Your task to perform on an android device: change notifications settings Image 0: 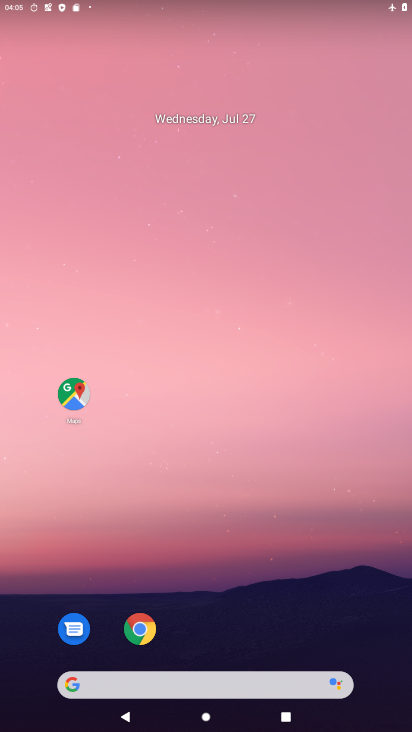
Step 0: drag from (312, 606) to (265, 48)
Your task to perform on an android device: change notifications settings Image 1: 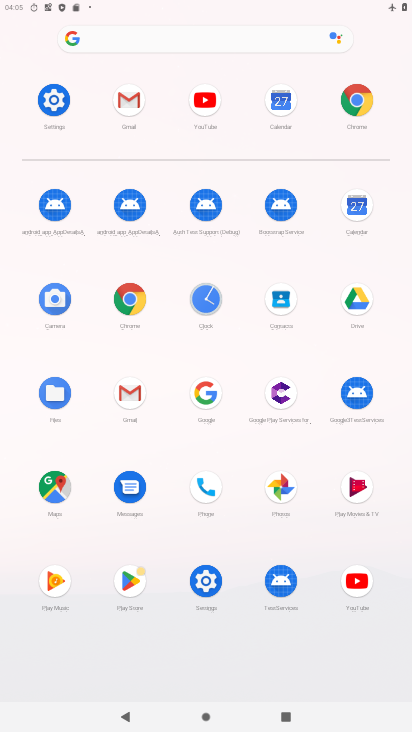
Step 1: click (46, 95)
Your task to perform on an android device: change notifications settings Image 2: 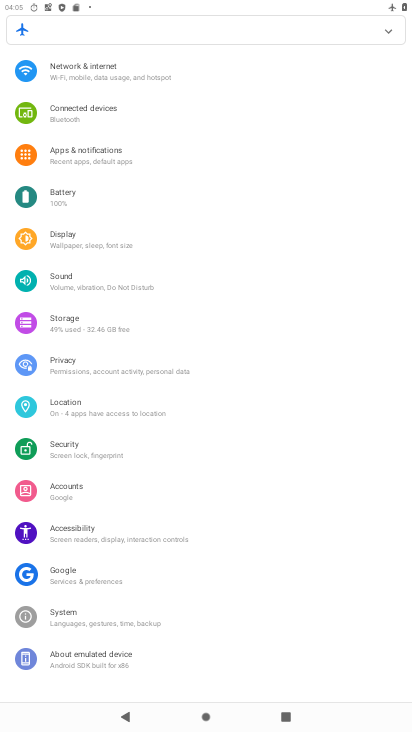
Step 2: click (94, 164)
Your task to perform on an android device: change notifications settings Image 3: 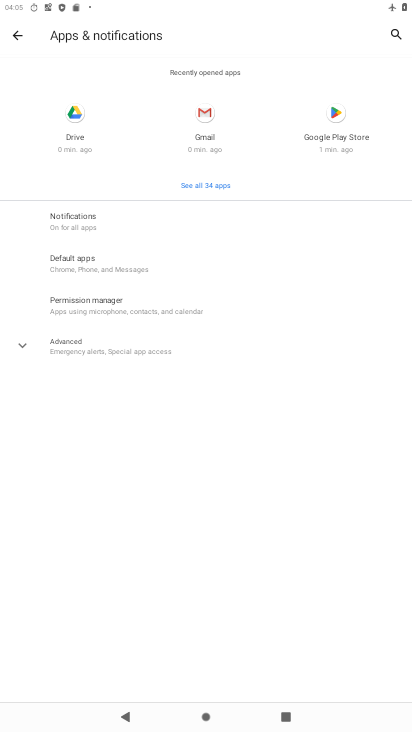
Step 3: click (92, 215)
Your task to perform on an android device: change notifications settings Image 4: 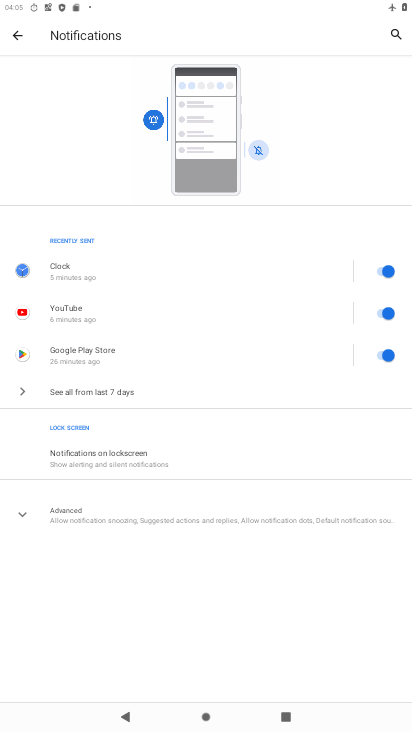
Step 4: task complete